Your task to perform on an android device: Search for "razer nari" on ebay, select the first entry, and add it to the cart. Image 0: 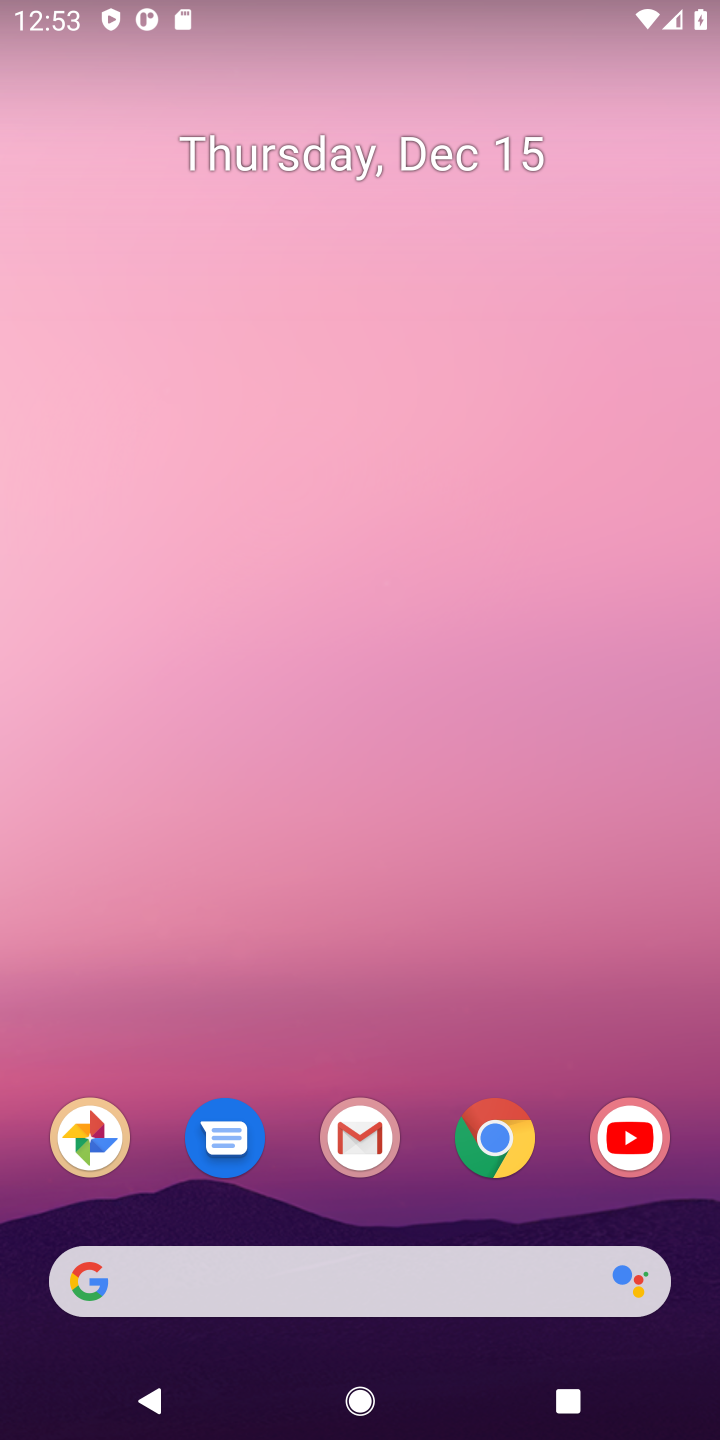
Step 0: click (488, 1169)
Your task to perform on an android device: Search for "razer nari" on ebay, select the first entry, and add it to the cart. Image 1: 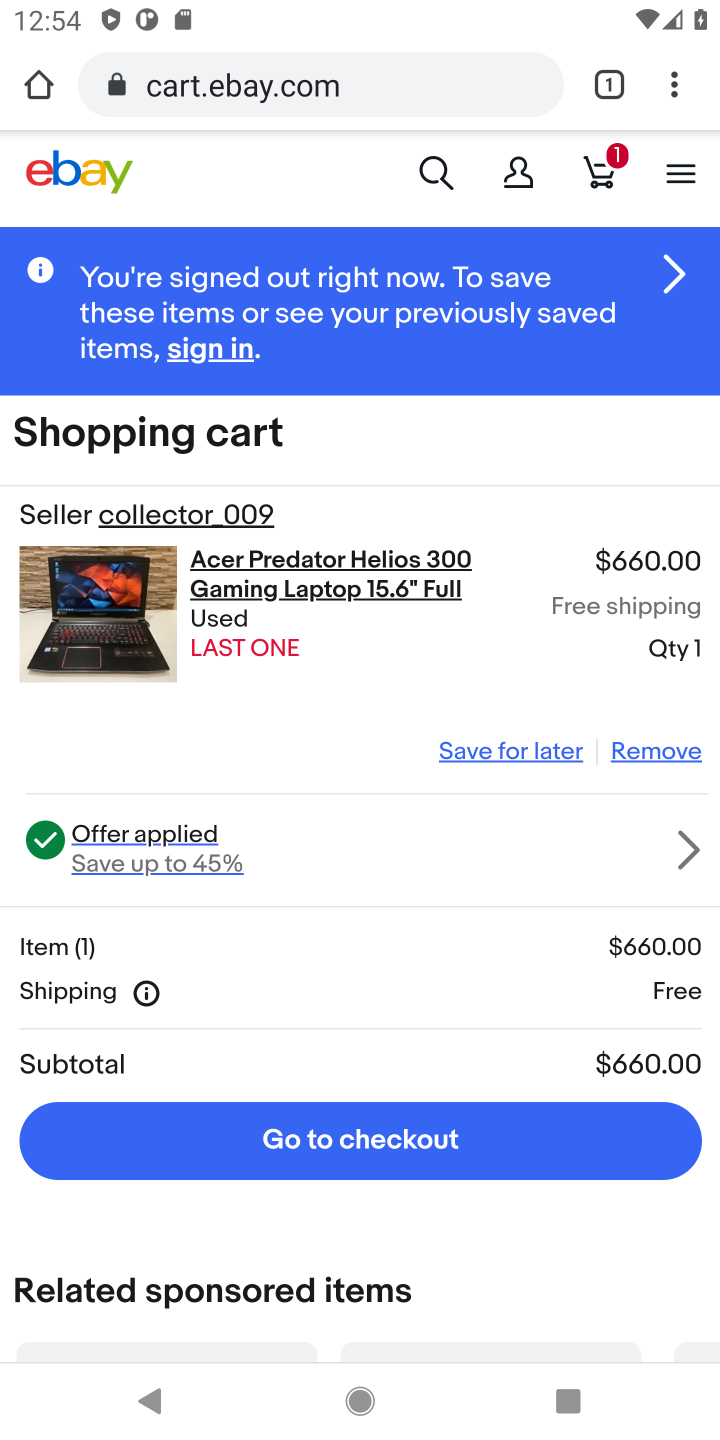
Step 1: click (435, 153)
Your task to perform on an android device: Search for "razer nari" on ebay, select the first entry, and add it to the cart. Image 2: 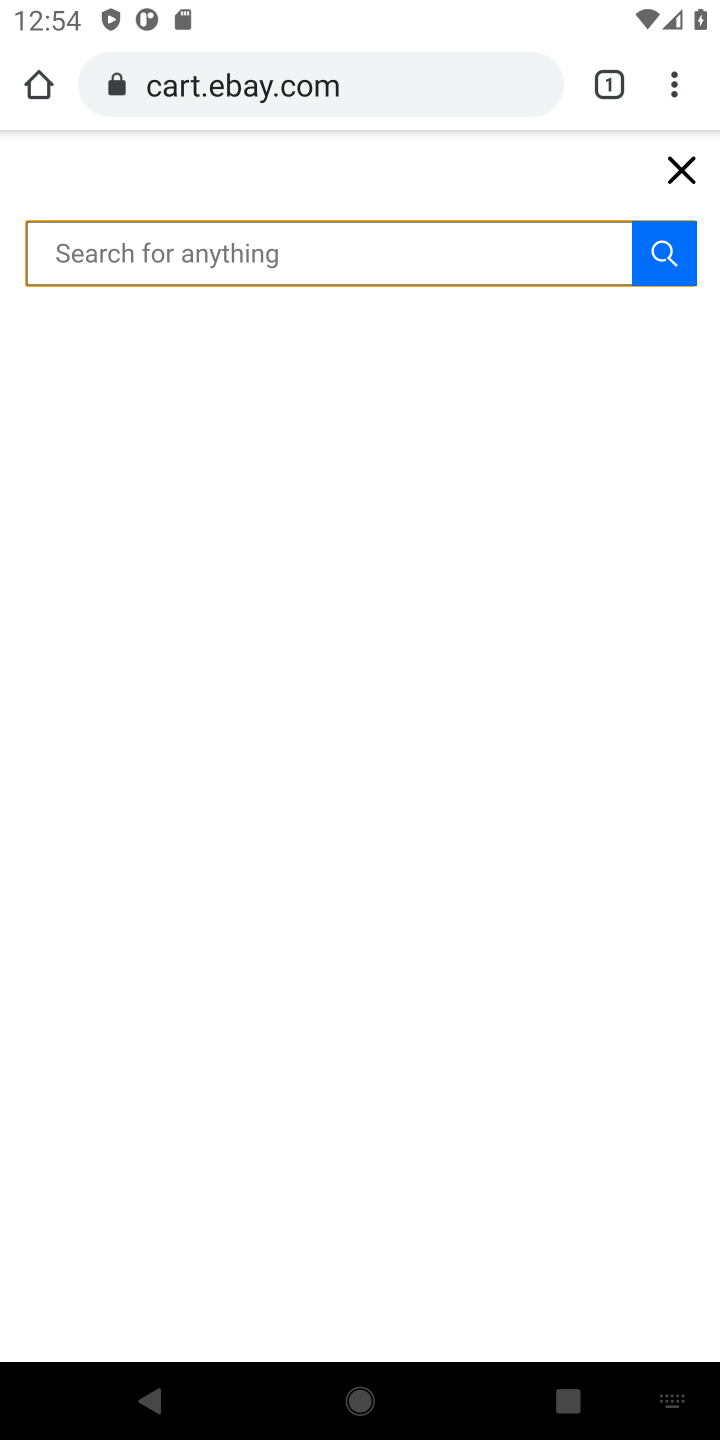
Step 2: type "razer nari"
Your task to perform on an android device: Search for "razer nari" on ebay, select the first entry, and add it to the cart. Image 3: 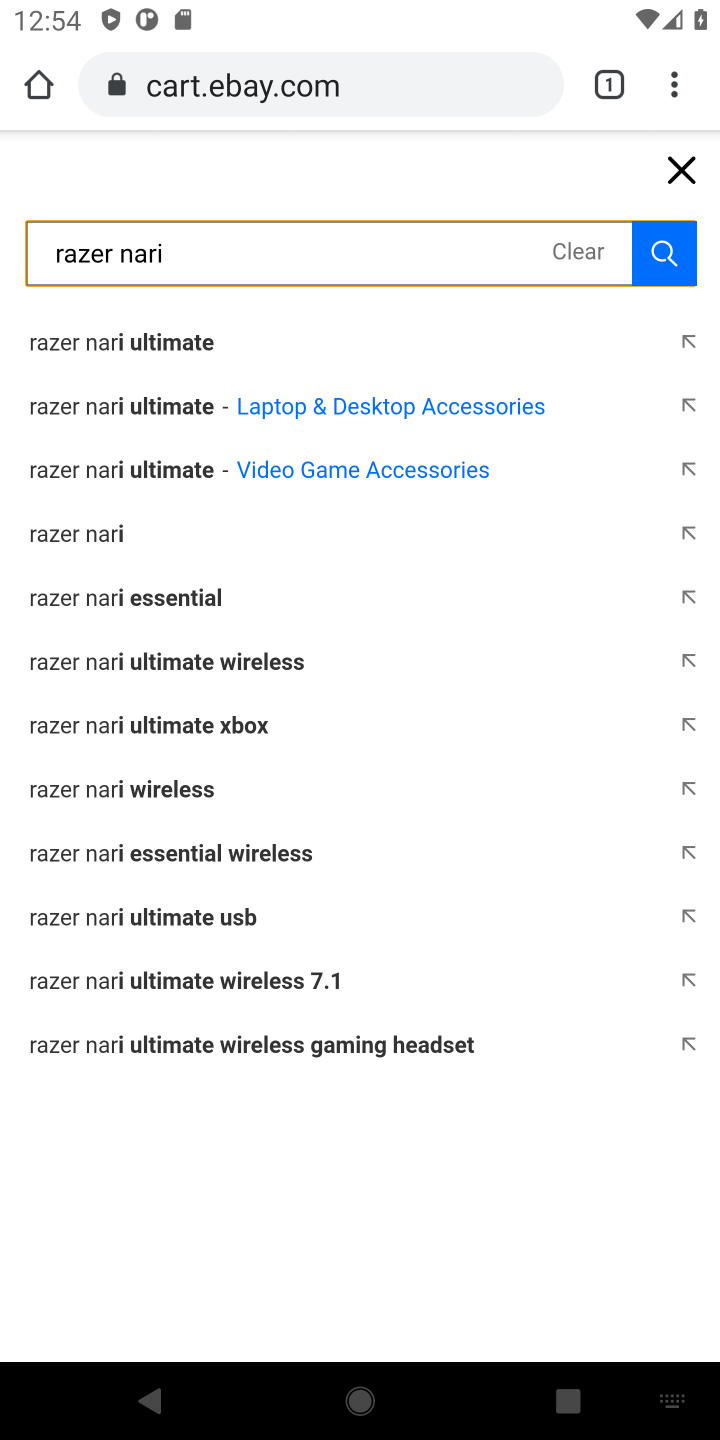
Step 3: click (662, 256)
Your task to perform on an android device: Search for "razer nari" on ebay, select the first entry, and add it to the cart. Image 4: 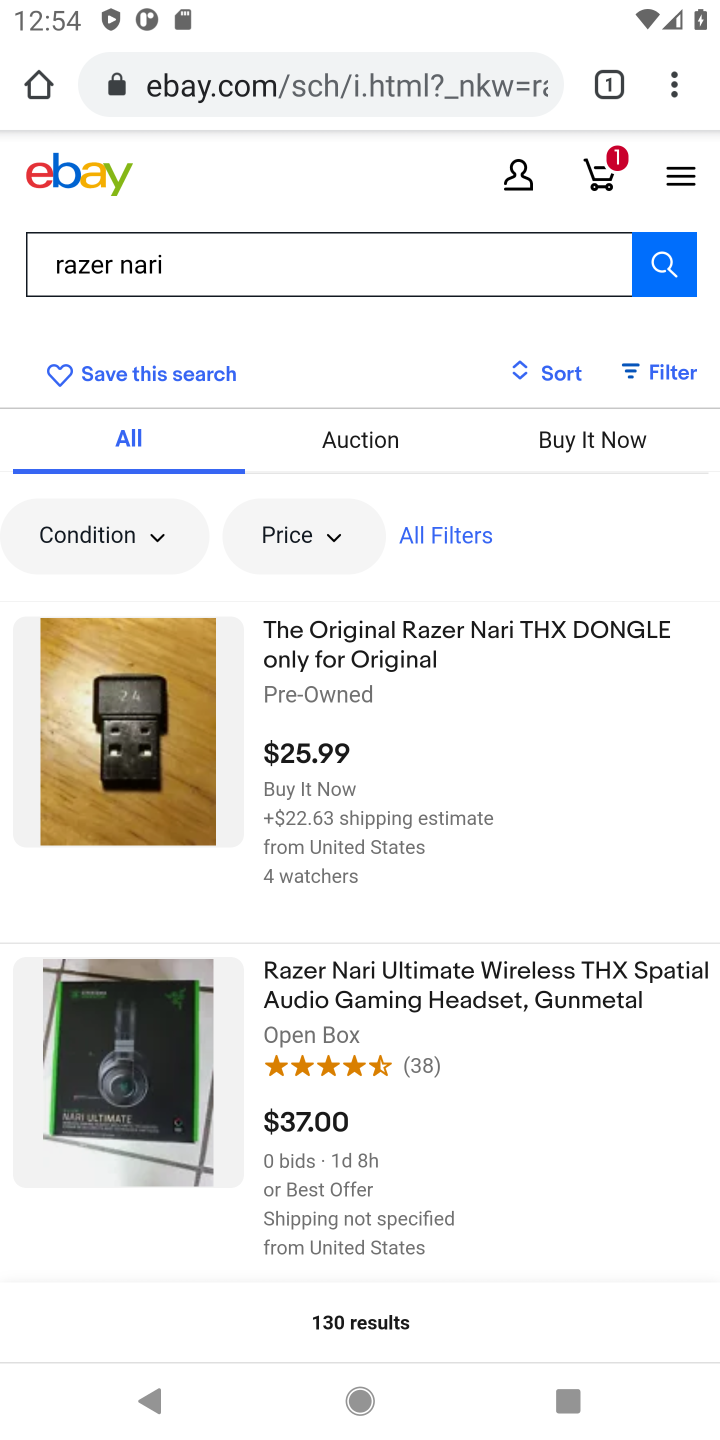
Step 4: click (367, 672)
Your task to perform on an android device: Search for "razer nari" on ebay, select the first entry, and add it to the cart. Image 5: 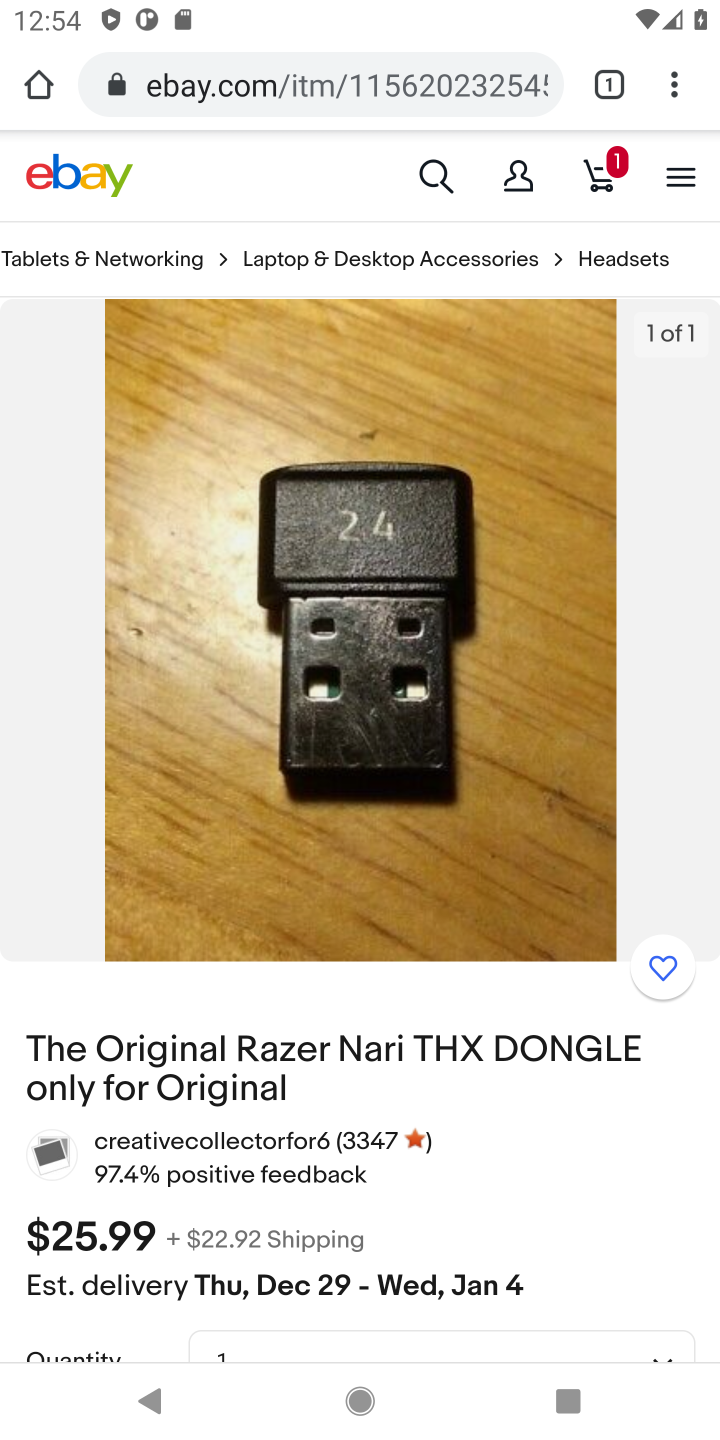
Step 5: drag from (481, 836) to (449, 505)
Your task to perform on an android device: Search for "razer nari" on ebay, select the first entry, and add it to the cart. Image 6: 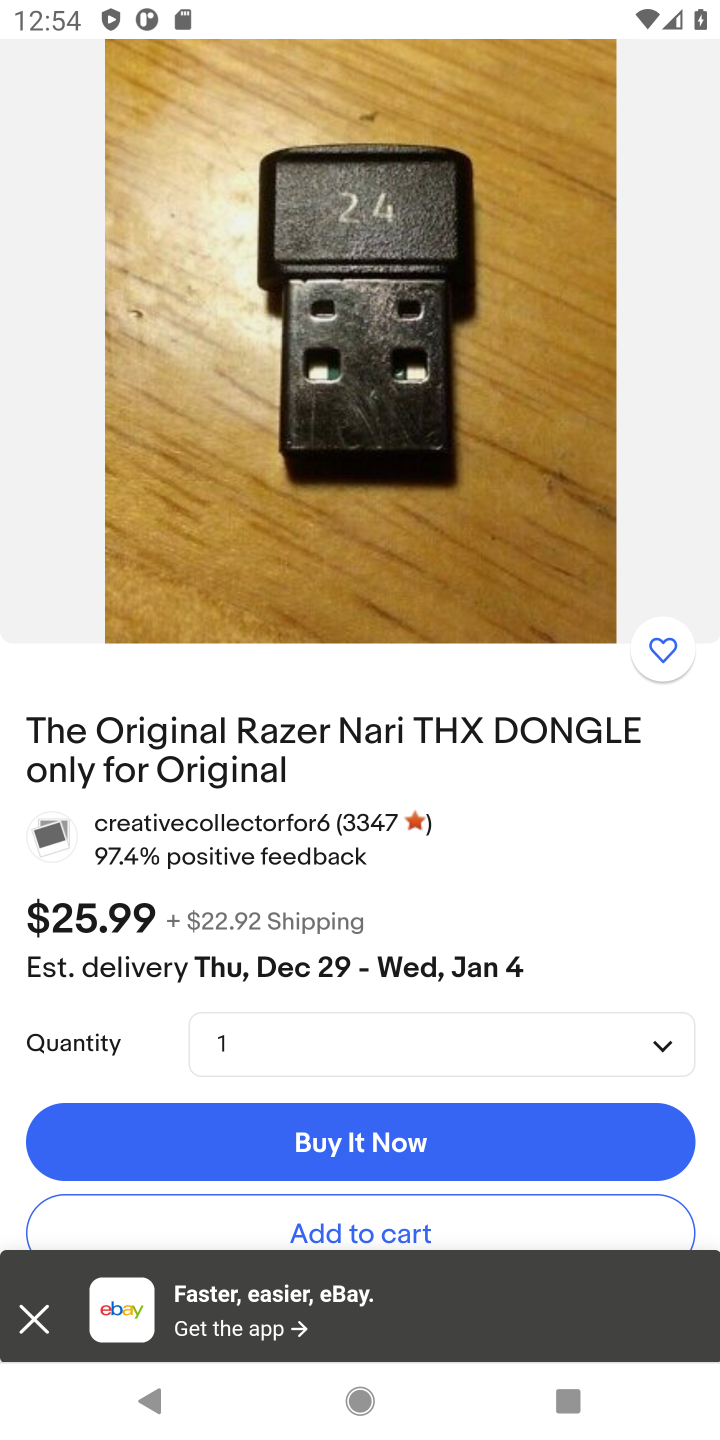
Step 6: click (297, 1141)
Your task to perform on an android device: Search for "razer nari" on ebay, select the first entry, and add it to the cart. Image 7: 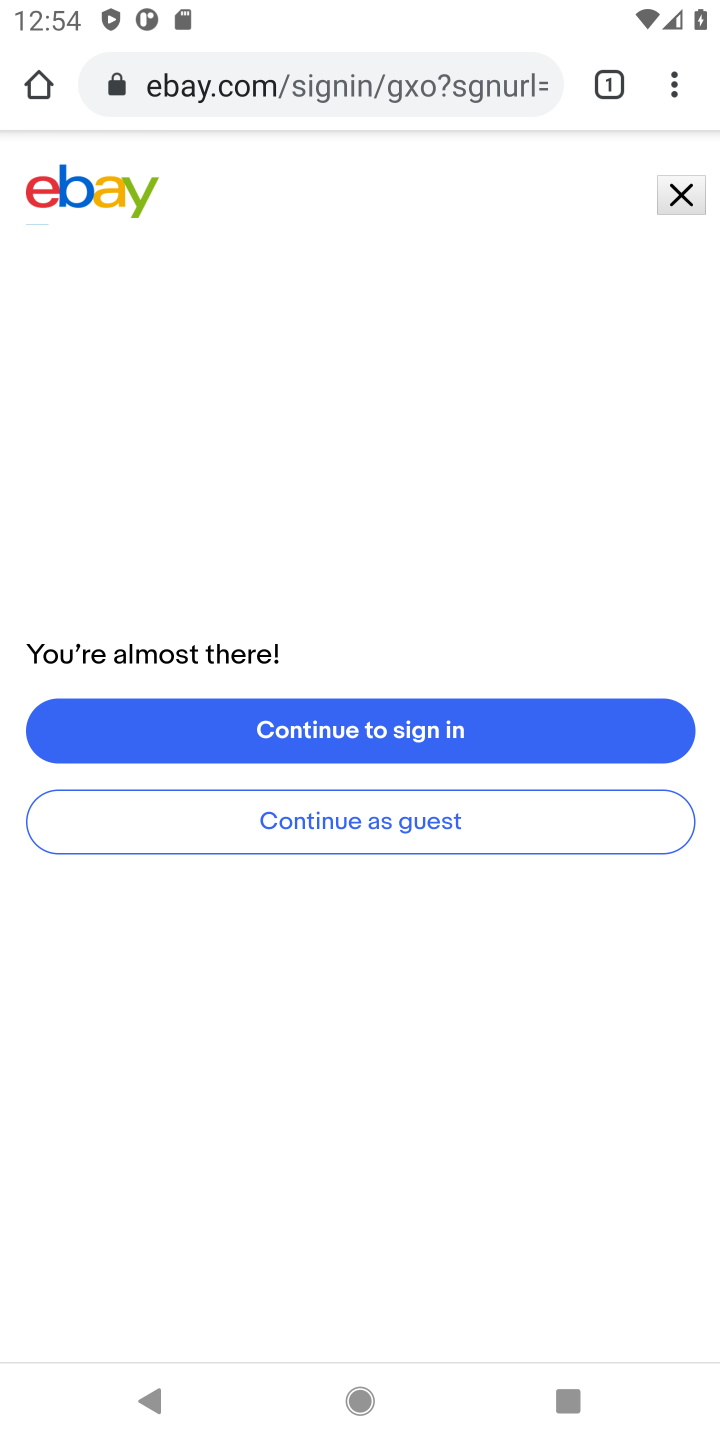
Step 7: click (412, 729)
Your task to perform on an android device: Search for "razer nari" on ebay, select the first entry, and add it to the cart. Image 8: 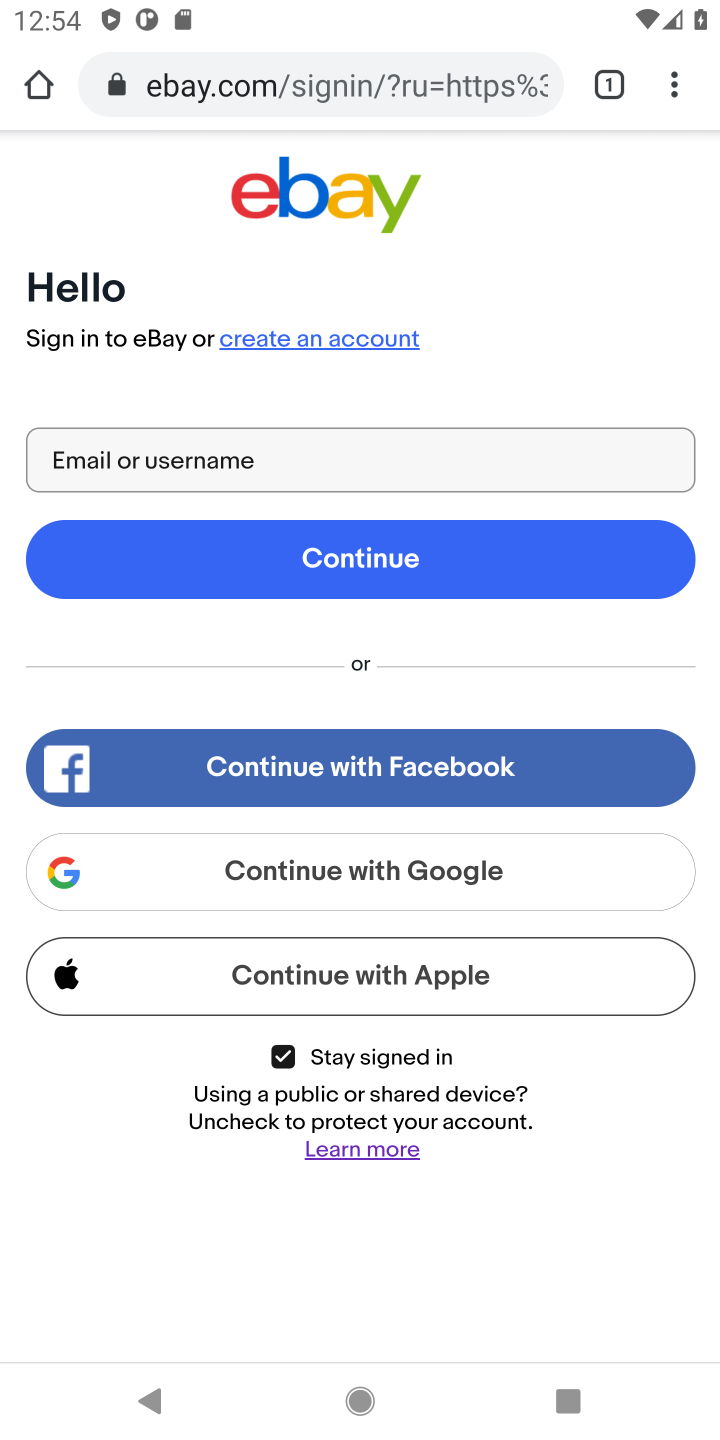
Step 8: task complete